Your task to perform on an android device: turn pop-ups on in chrome Image 0: 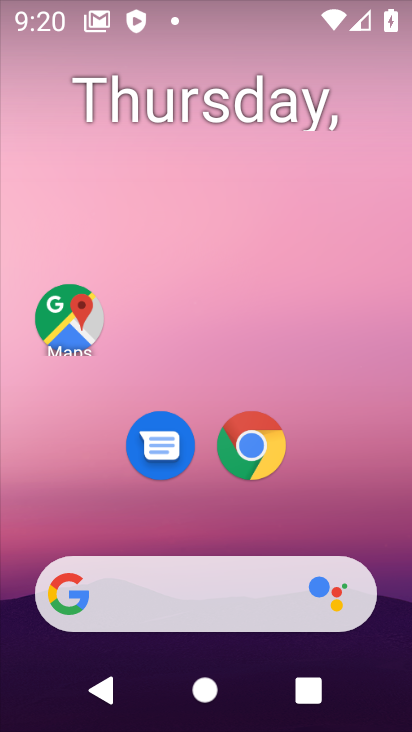
Step 0: click (249, 453)
Your task to perform on an android device: turn pop-ups on in chrome Image 1: 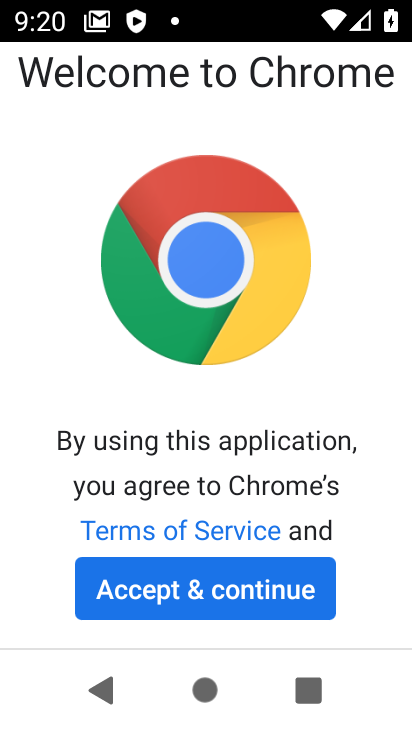
Step 1: click (217, 583)
Your task to perform on an android device: turn pop-ups on in chrome Image 2: 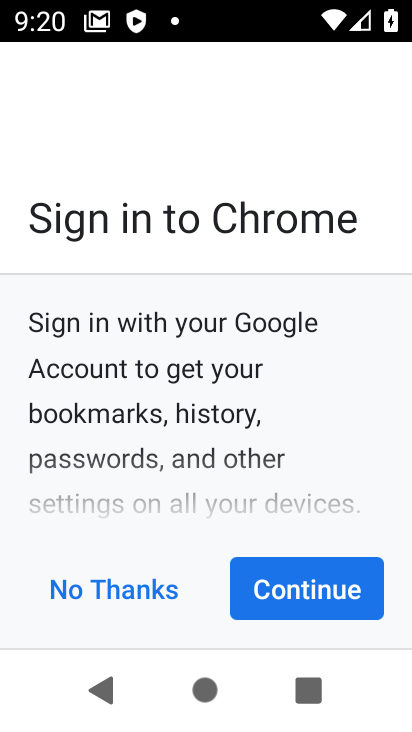
Step 2: click (287, 579)
Your task to perform on an android device: turn pop-ups on in chrome Image 3: 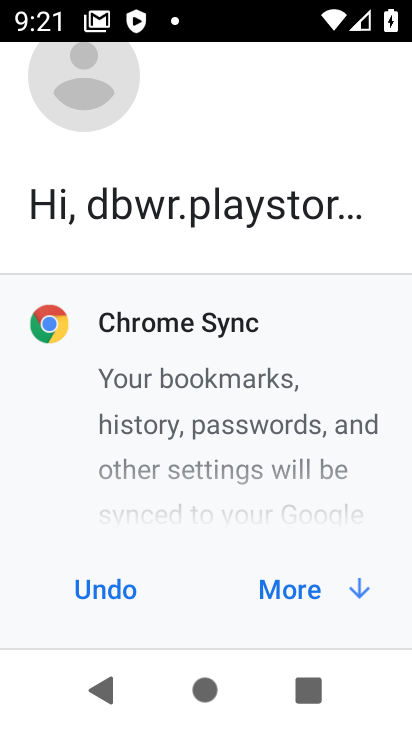
Step 3: click (311, 591)
Your task to perform on an android device: turn pop-ups on in chrome Image 4: 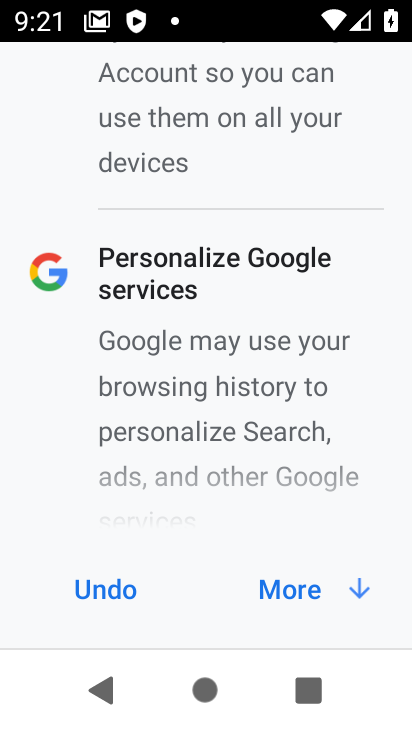
Step 4: click (311, 591)
Your task to perform on an android device: turn pop-ups on in chrome Image 5: 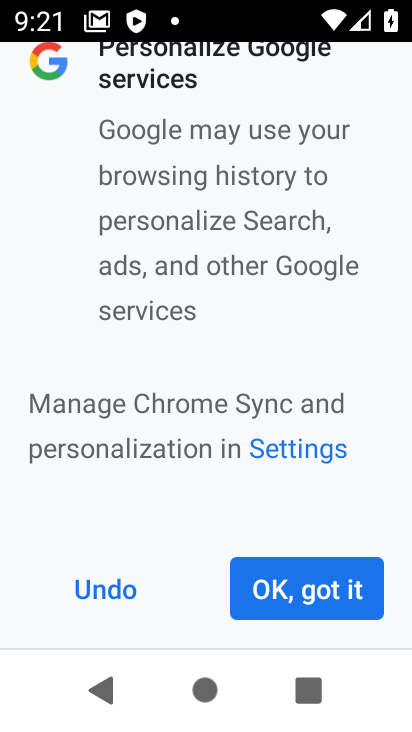
Step 5: click (311, 591)
Your task to perform on an android device: turn pop-ups on in chrome Image 6: 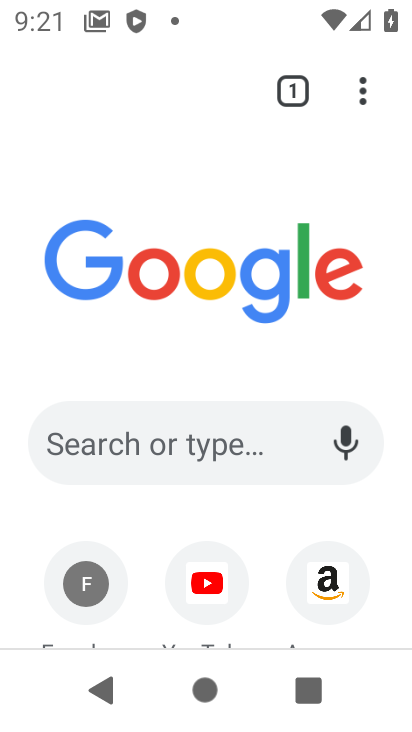
Step 6: click (364, 88)
Your task to perform on an android device: turn pop-ups on in chrome Image 7: 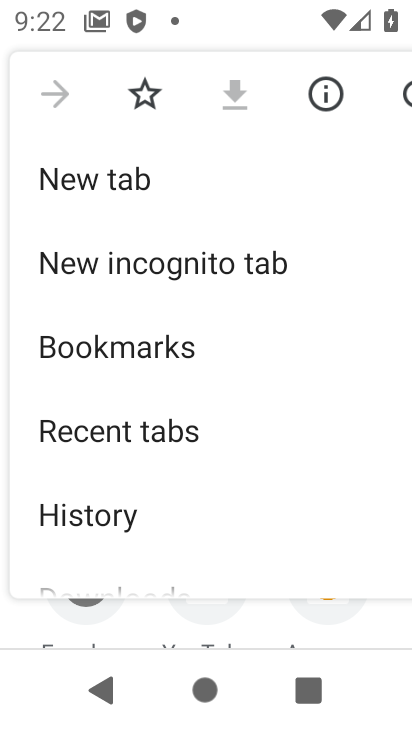
Step 7: drag from (105, 555) to (150, 285)
Your task to perform on an android device: turn pop-ups on in chrome Image 8: 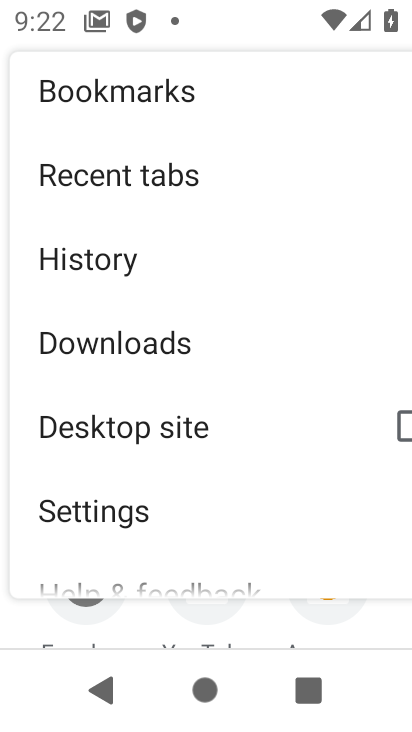
Step 8: click (113, 517)
Your task to perform on an android device: turn pop-ups on in chrome Image 9: 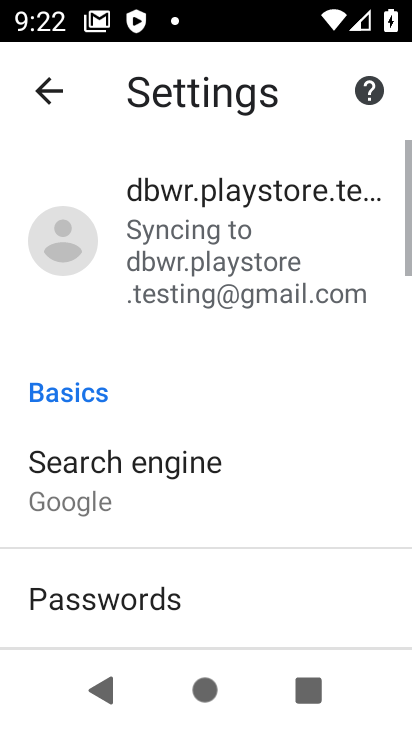
Step 9: drag from (118, 528) to (162, 208)
Your task to perform on an android device: turn pop-ups on in chrome Image 10: 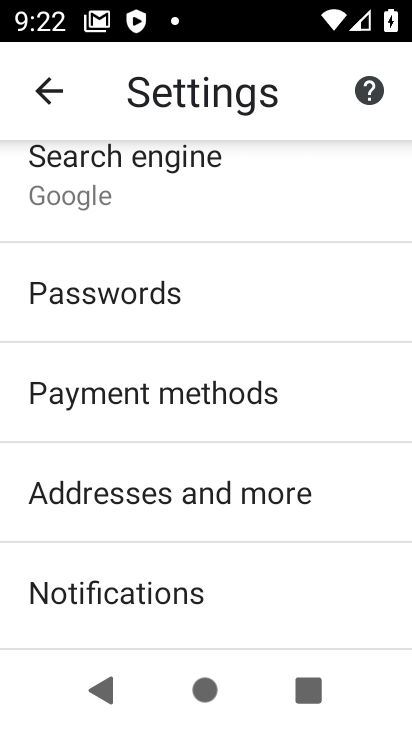
Step 10: drag from (134, 571) to (153, 258)
Your task to perform on an android device: turn pop-ups on in chrome Image 11: 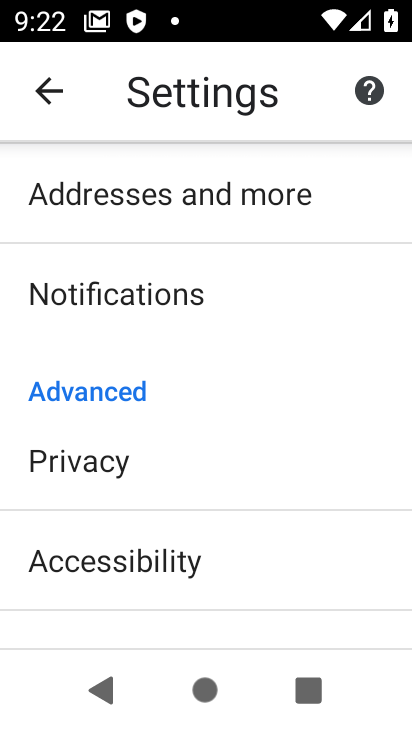
Step 11: drag from (73, 584) to (93, 341)
Your task to perform on an android device: turn pop-ups on in chrome Image 12: 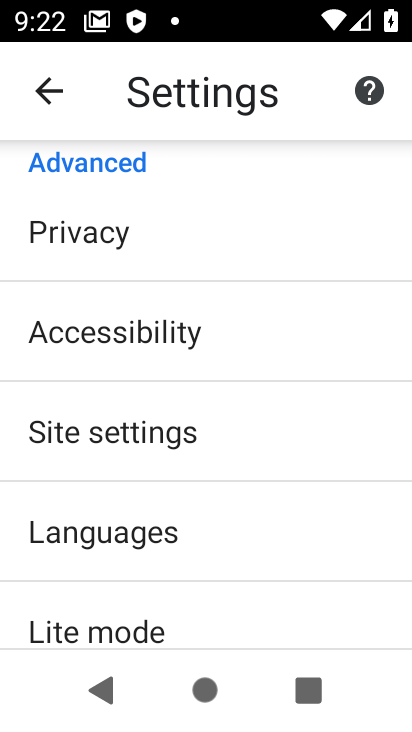
Step 12: click (63, 435)
Your task to perform on an android device: turn pop-ups on in chrome Image 13: 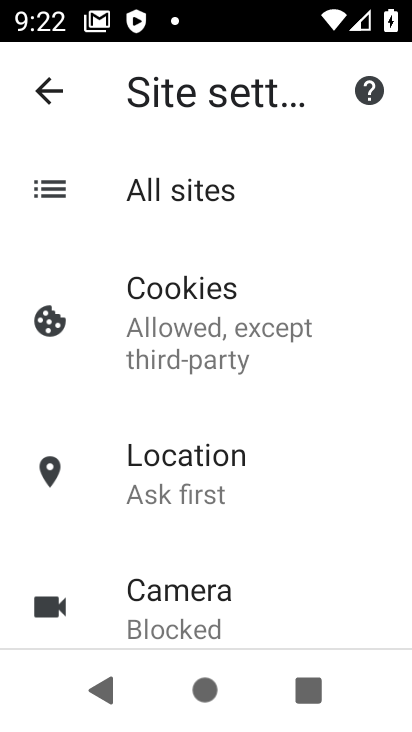
Step 13: drag from (137, 596) to (219, 317)
Your task to perform on an android device: turn pop-ups on in chrome Image 14: 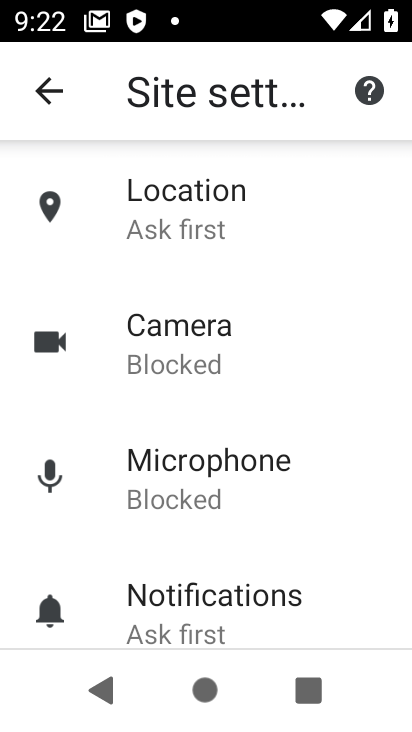
Step 14: drag from (192, 615) to (215, 400)
Your task to perform on an android device: turn pop-ups on in chrome Image 15: 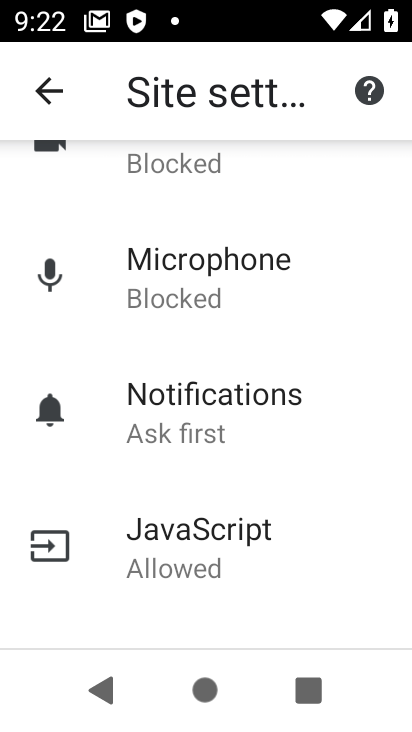
Step 15: drag from (158, 614) to (170, 559)
Your task to perform on an android device: turn pop-ups on in chrome Image 16: 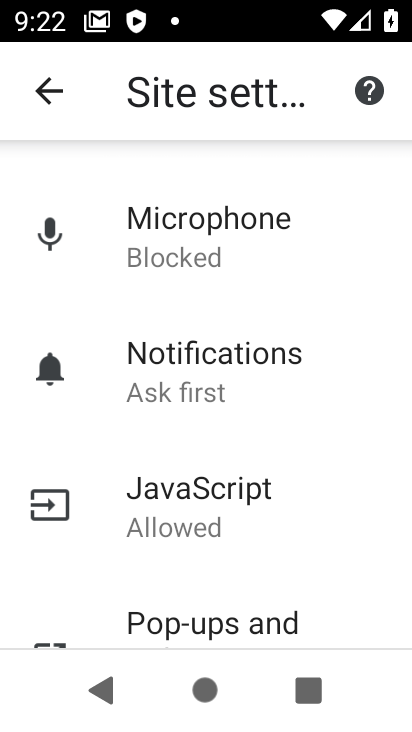
Step 16: drag from (163, 594) to (202, 328)
Your task to perform on an android device: turn pop-ups on in chrome Image 17: 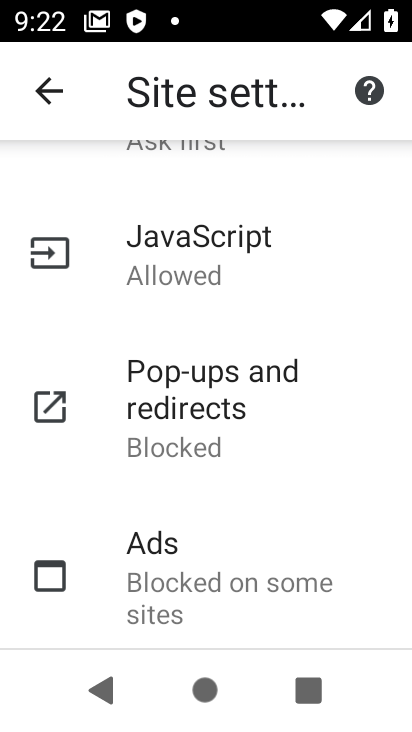
Step 17: click (184, 411)
Your task to perform on an android device: turn pop-ups on in chrome Image 18: 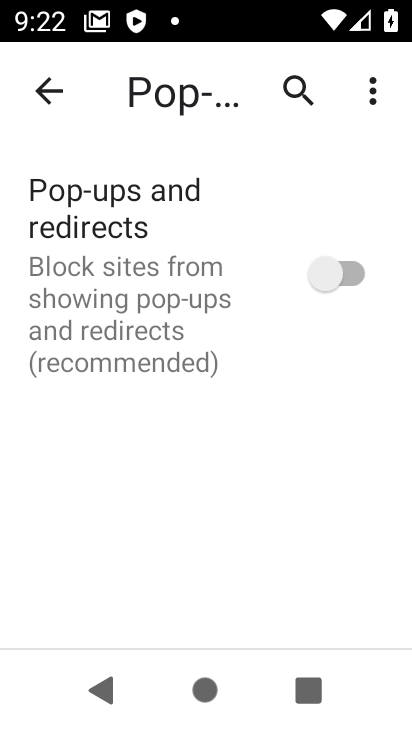
Step 18: click (343, 274)
Your task to perform on an android device: turn pop-ups on in chrome Image 19: 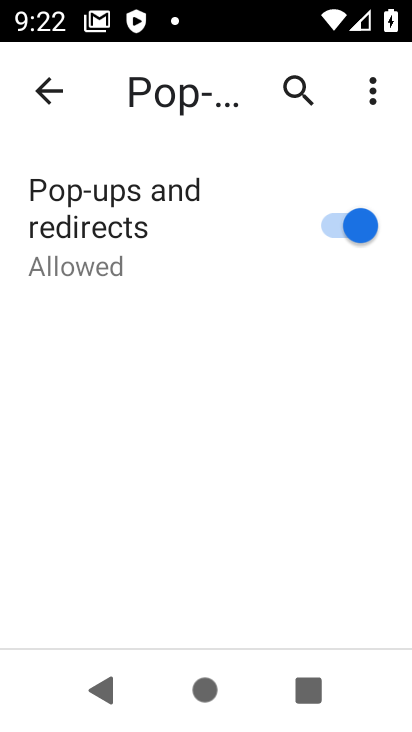
Step 19: task complete